Your task to perform on an android device: choose inbox layout in the gmail app Image 0: 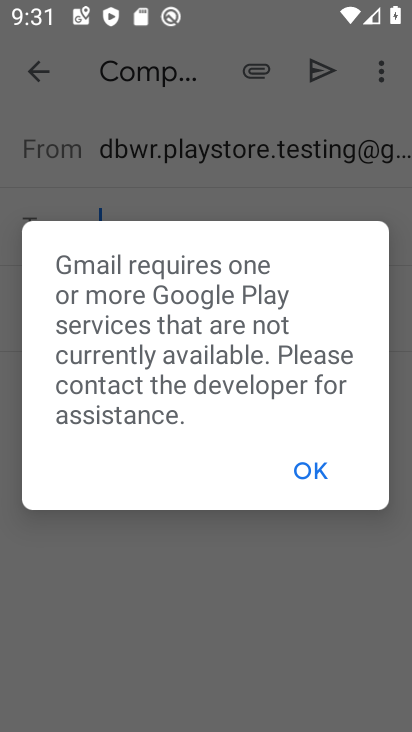
Step 0: press home button
Your task to perform on an android device: choose inbox layout in the gmail app Image 1: 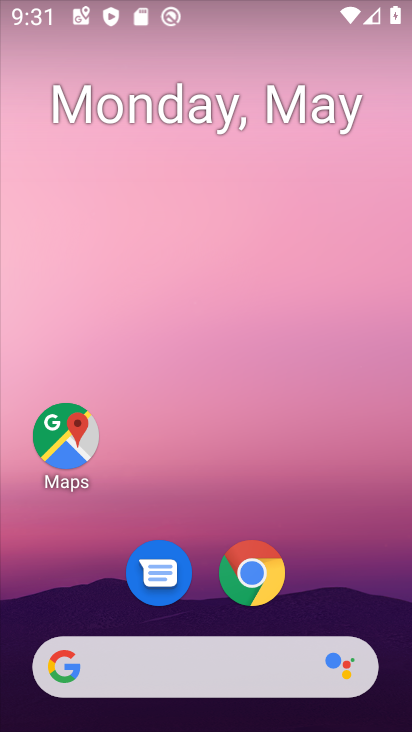
Step 1: drag from (358, 570) to (280, 1)
Your task to perform on an android device: choose inbox layout in the gmail app Image 2: 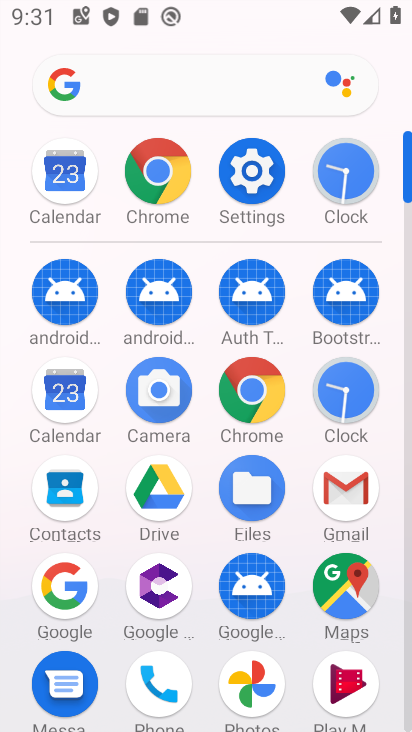
Step 2: click (345, 480)
Your task to perform on an android device: choose inbox layout in the gmail app Image 3: 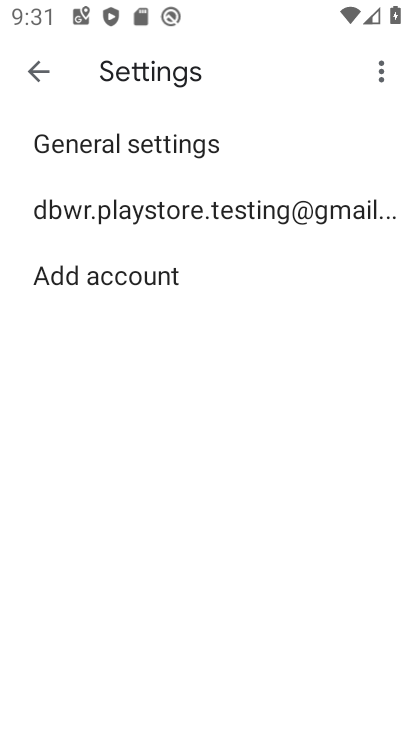
Step 3: click (44, 72)
Your task to perform on an android device: choose inbox layout in the gmail app Image 4: 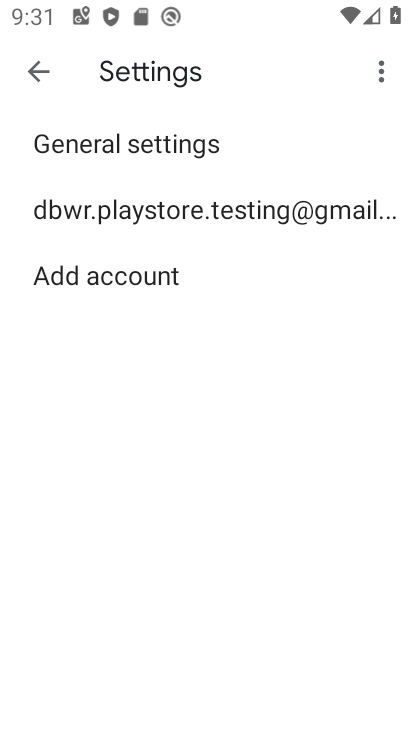
Step 4: click (44, 72)
Your task to perform on an android device: choose inbox layout in the gmail app Image 5: 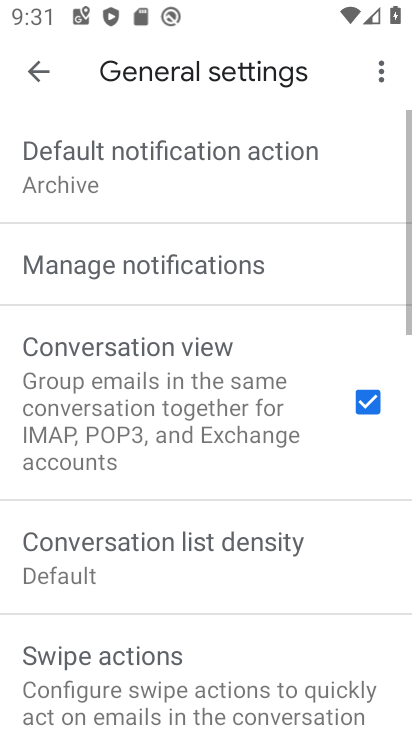
Step 5: click (44, 72)
Your task to perform on an android device: choose inbox layout in the gmail app Image 6: 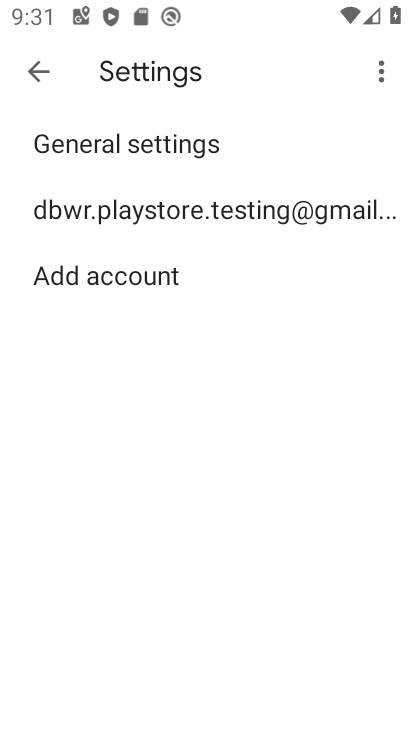
Step 6: click (44, 72)
Your task to perform on an android device: choose inbox layout in the gmail app Image 7: 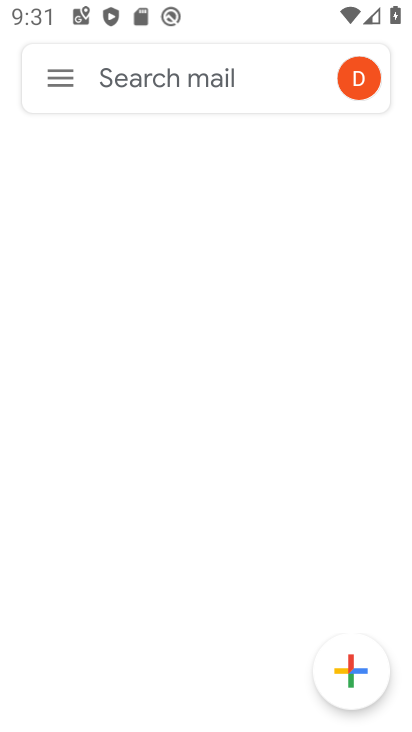
Step 7: click (44, 72)
Your task to perform on an android device: choose inbox layout in the gmail app Image 8: 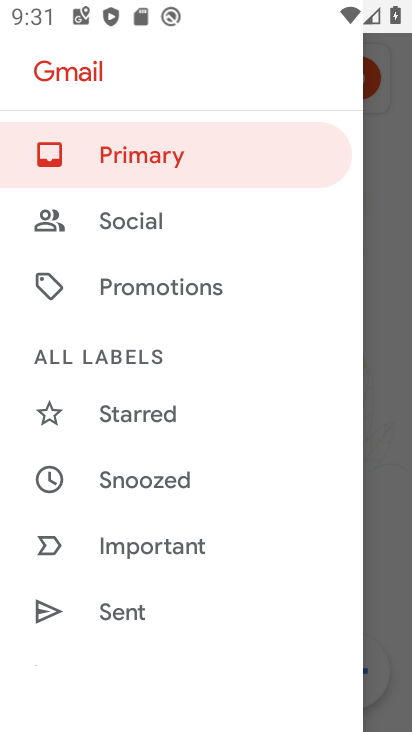
Step 8: click (161, 155)
Your task to perform on an android device: choose inbox layout in the gmail app Image 9: 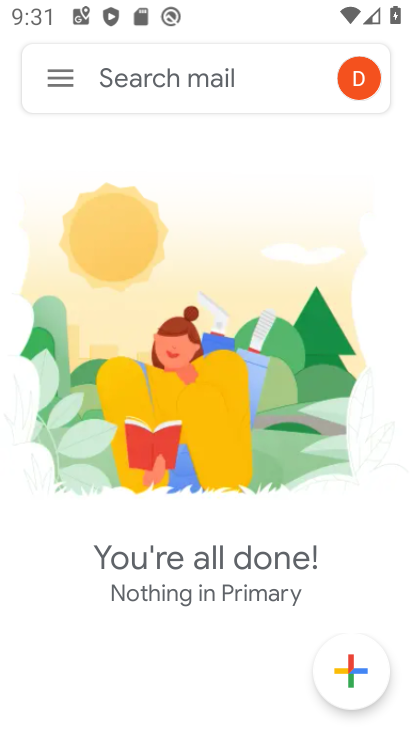
Step 9: task complete